Your task to perform on an android device: Clear the shopping cart on target. Add "logitech g933" to the cart on target, then select checkout. Image 0: 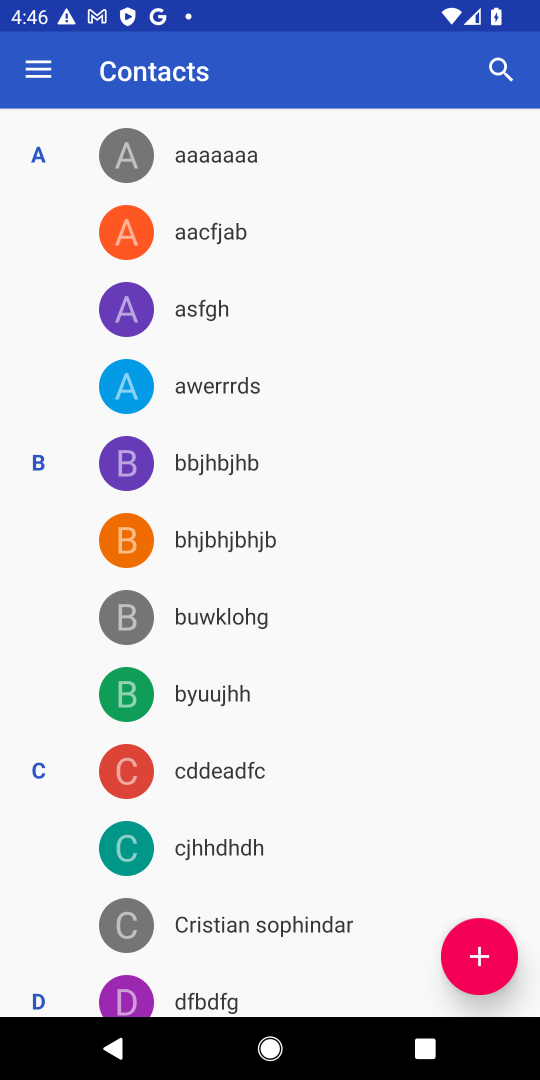
Step 0: press home button
Your task to perform on an android device: Clear the shopping cart on target. Add "logitech g933" to the cart on target, then select checkout. Image 1: 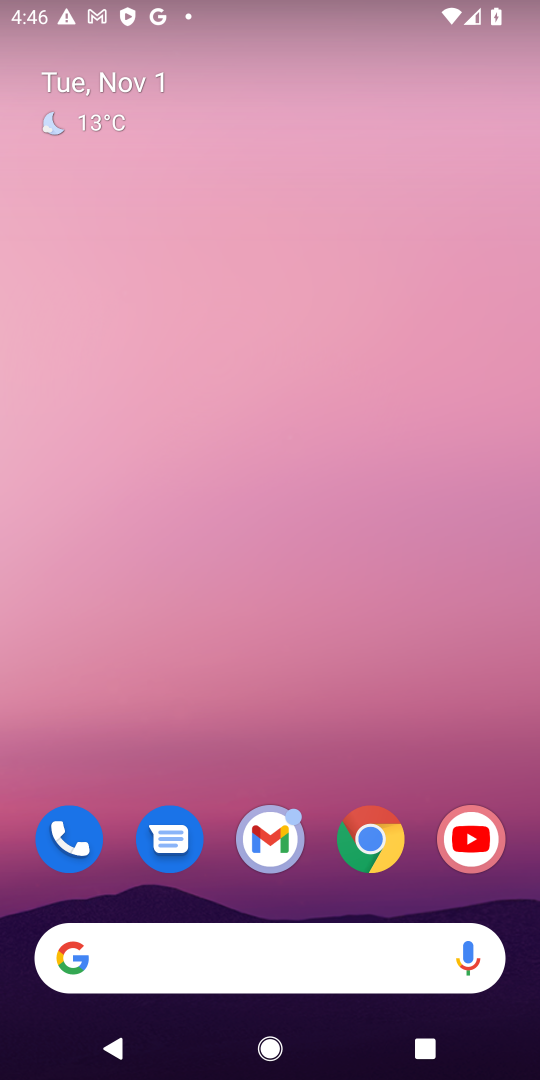
Step 1: drag from (306, 878) to (385, 14)
Your task to perform on an android device: Clear the shopping cart on target. Add "logitech g933" to the cart on target, then select checkout. Image 2: 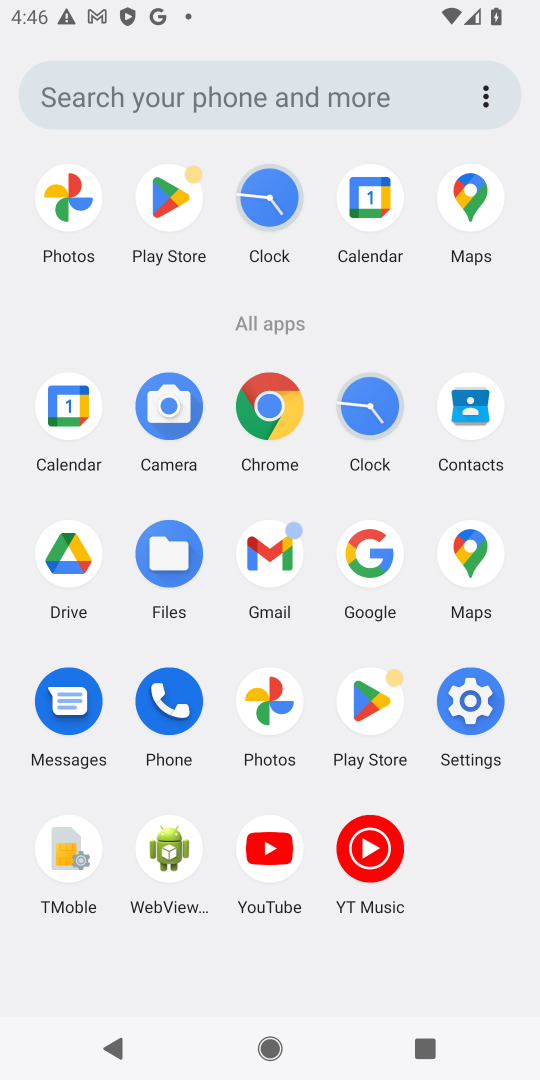
Step 2: click (257, 422)
Your task to perform on an android device: Clear the shopping cart on target. Add "logitech g933" to the cart on target, then select checkout. Image 3: 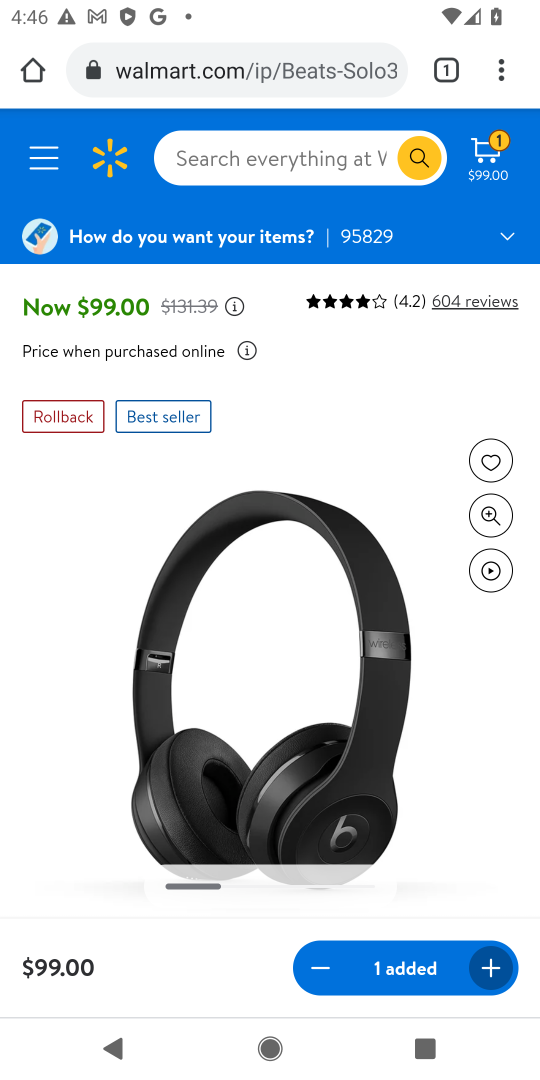
Step 3: click (266, 76)
Your task to perform on an android device: Clear the shopping cart on target. Add "logitech g933" to the cart on target, then select checkout. Image 4: 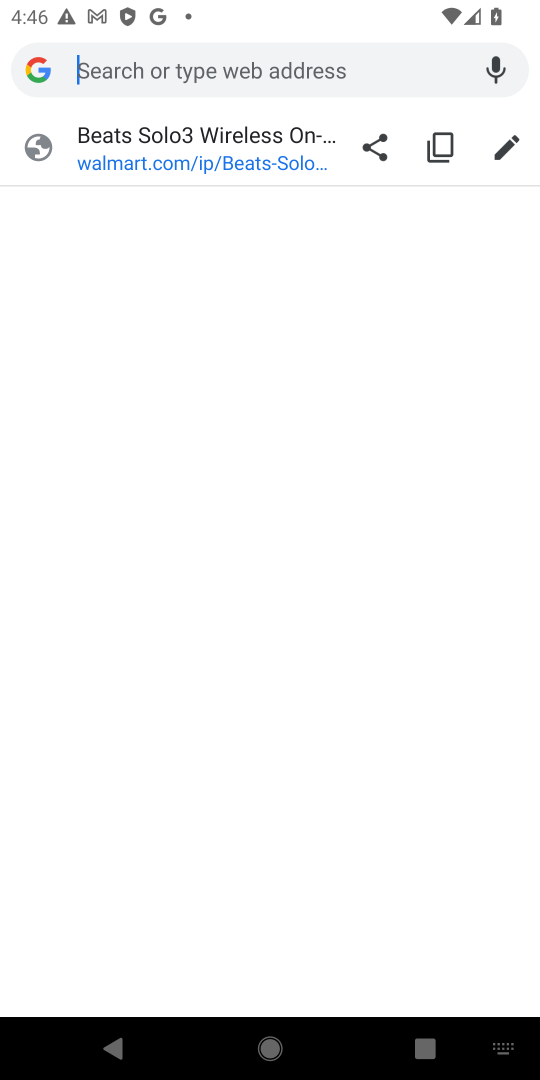
Step 4: type "target.com"
Your task to perform on an android device: Clear the shopping cart on target. Add "logitech g933" to the cart on target, then select checkout. Image 5: 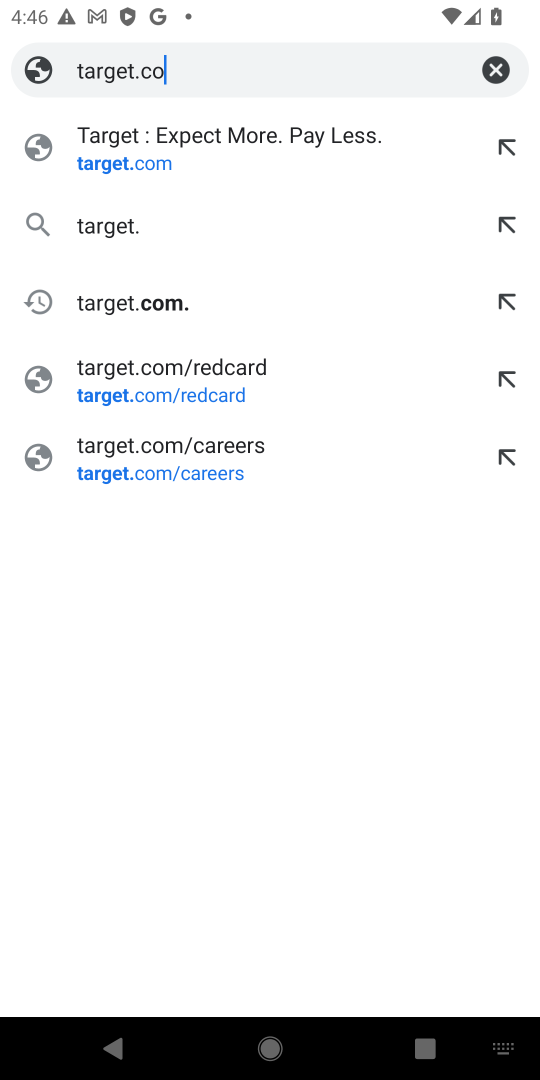
Step 5: press enter
Your task to perform on an android device: Clear the shopping cart on target. Add "logitech g933" to the cart on target, then select checkout. Image 6: 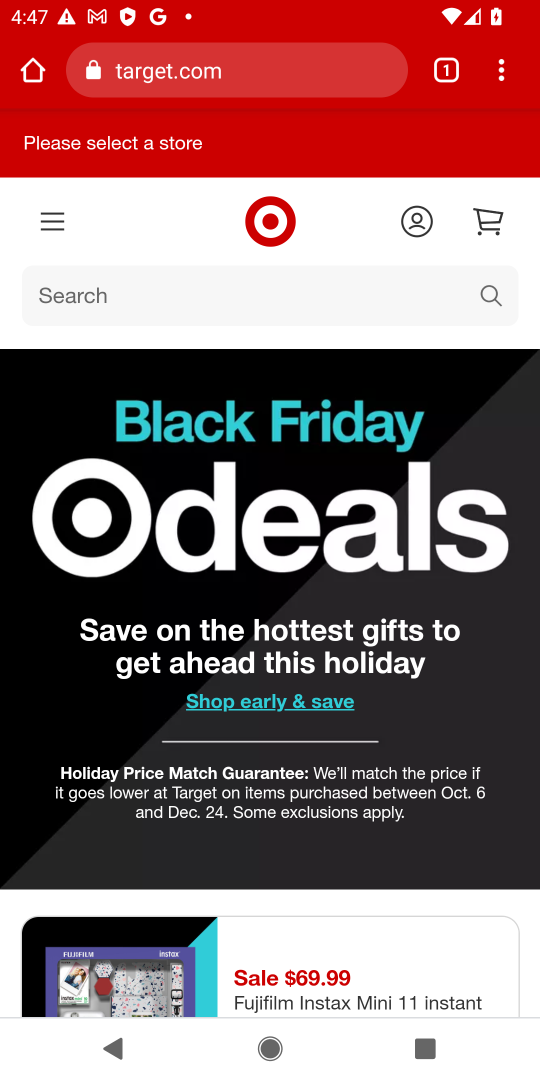
Step 6: click (331, 306)
Your task to perform on an android device: Clear the shopping cart on target. Add "logitech g933" to the cart on target, then select checkout. Image 7: 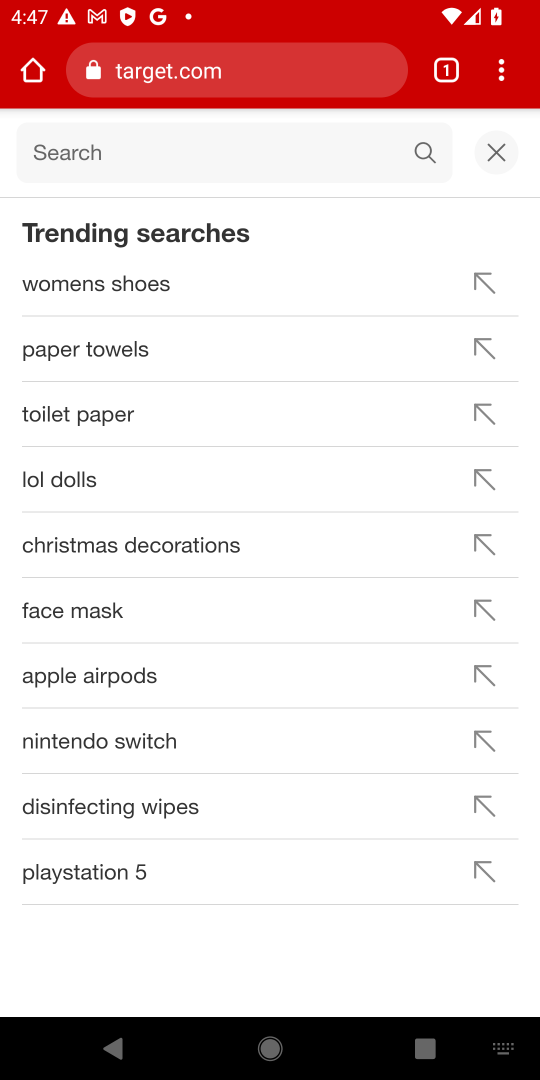
Step 7: click (490, 151)
Your task to perform on an android device: Clear the shopping cart on target. Add "logitech g933" to the cart on target, then select checkout. Image 8: 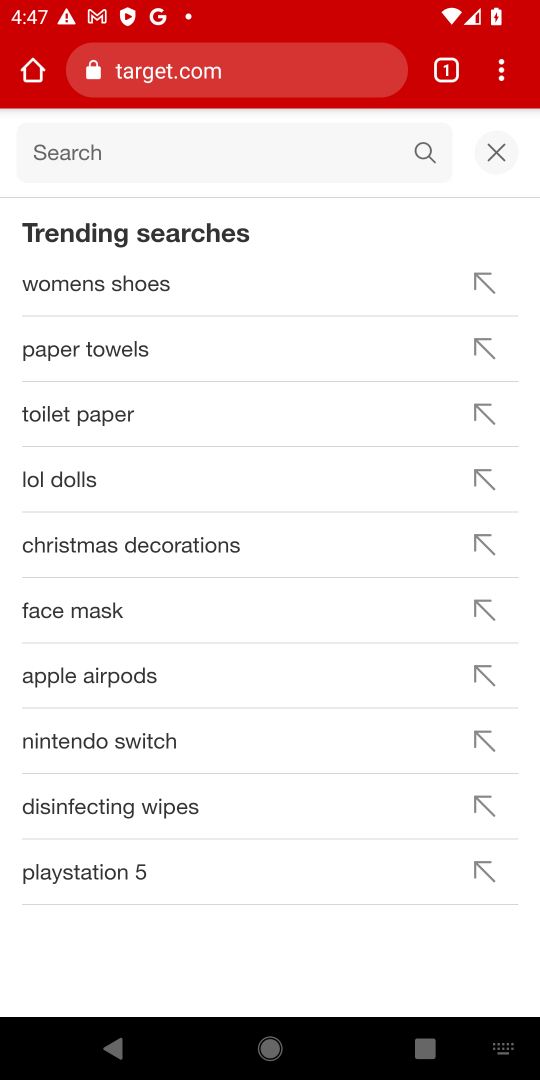
Step 8: type "logitech g933"
Your task to perform on an android device: Clear the shopping cart on target. Add "logitech g933" to the cart on target, then select checkout. Image 9: 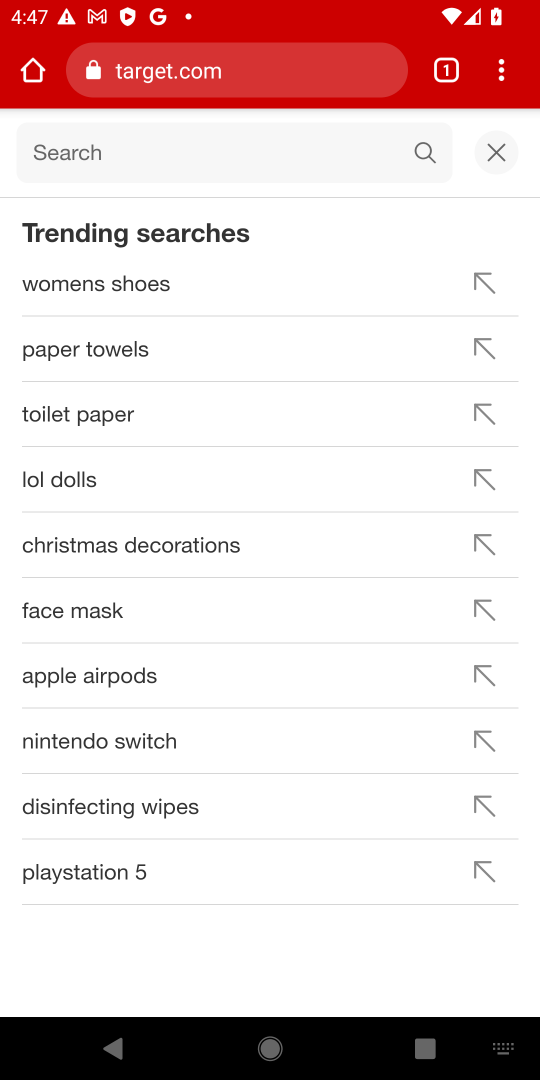
Step 9: click (490, 151)
Your task to perform on an android device: Clear the shopping cart on target. Add "logitech g933" to the cart on target, then select checkout. Image 10: 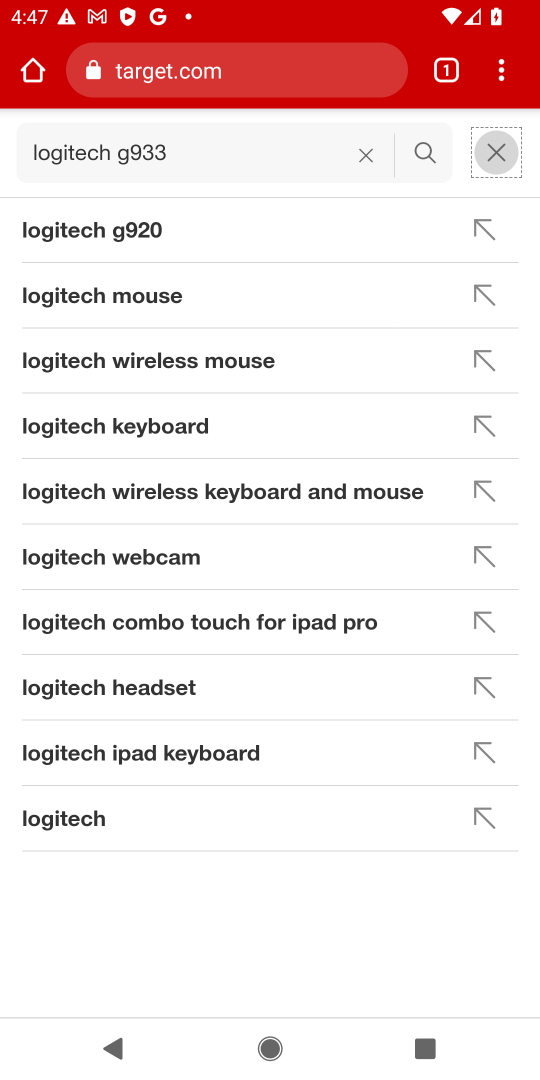
Step 10: click (493, 153)
Your task to perform on an android device: Clear the shopping cart on target. Add "logitech g933" to the cart on target, then select checkout. Image 11: 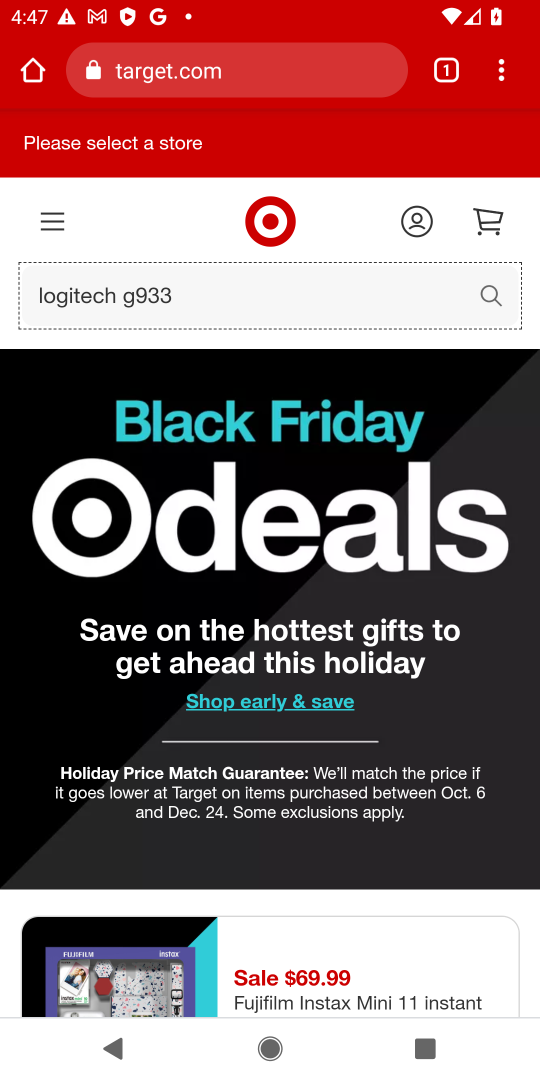
Step 11: click (489, 216)
Your task to perform on an android device: Clear the shopping cart on target. Add "logitech g933" to the cart on target, then select checkout. Image 12: 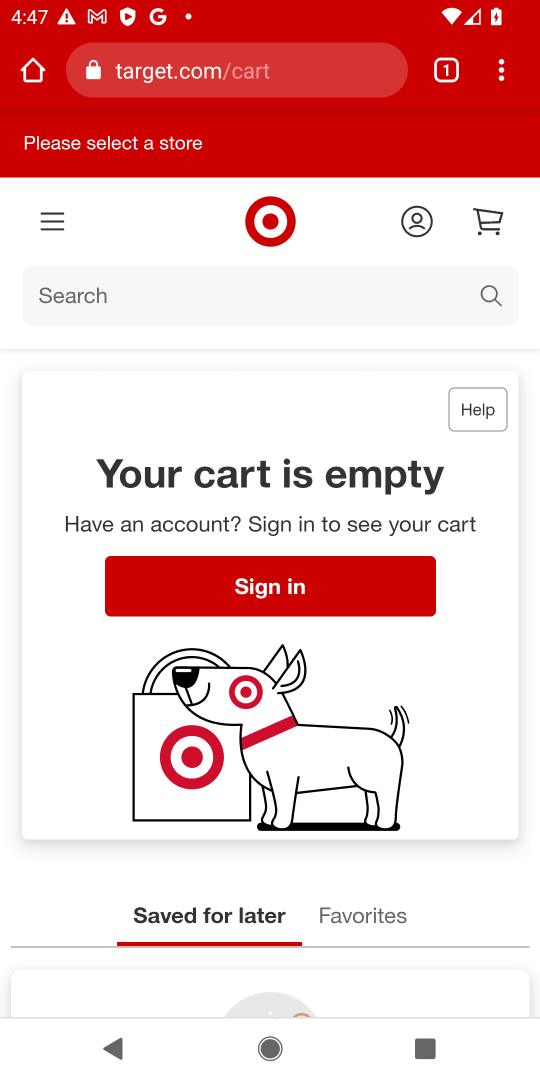
Step 12: click (367, 288)
Your task to perform on an android device: Clear the shopping cart on target. Add "logitech g933" to the cart on target, then select checkout. Image 13: 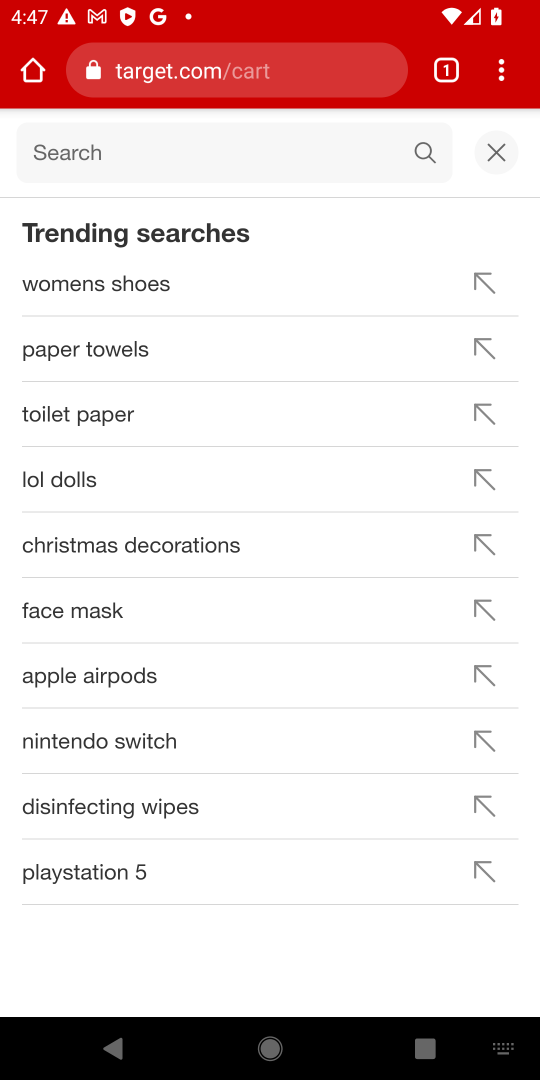
Step 13: type "logitech g933"
Your task to perform on an android device: Clear the shopping cart on target. Add "logitech g933" to the cart on target, then select checkout. Image 14: 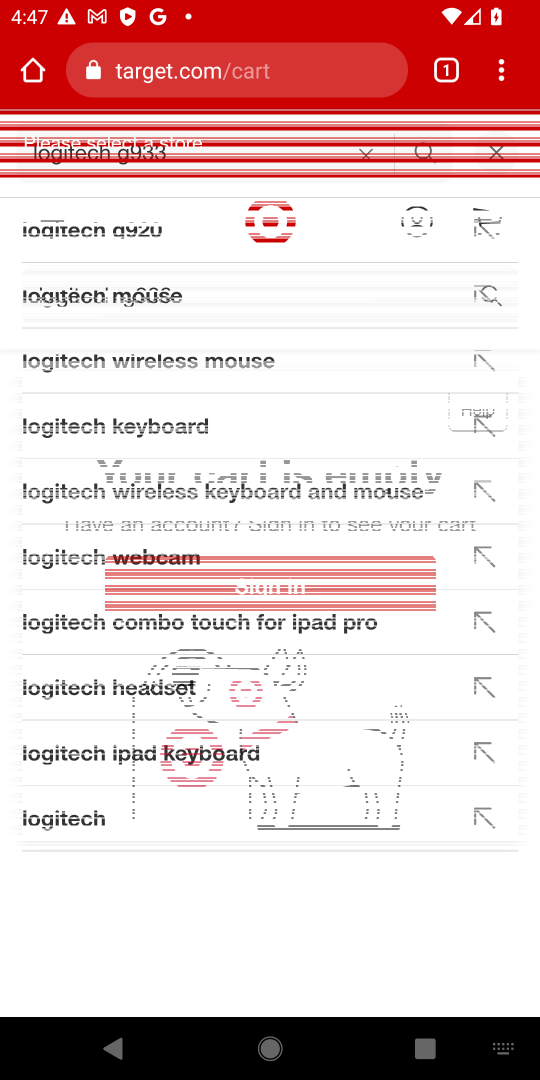
Step 14: press enter
Your task to perform on an android device: Clear the shopping cart on target. Add "logitech g933" to the cart on target, then select checkout. Image 15: 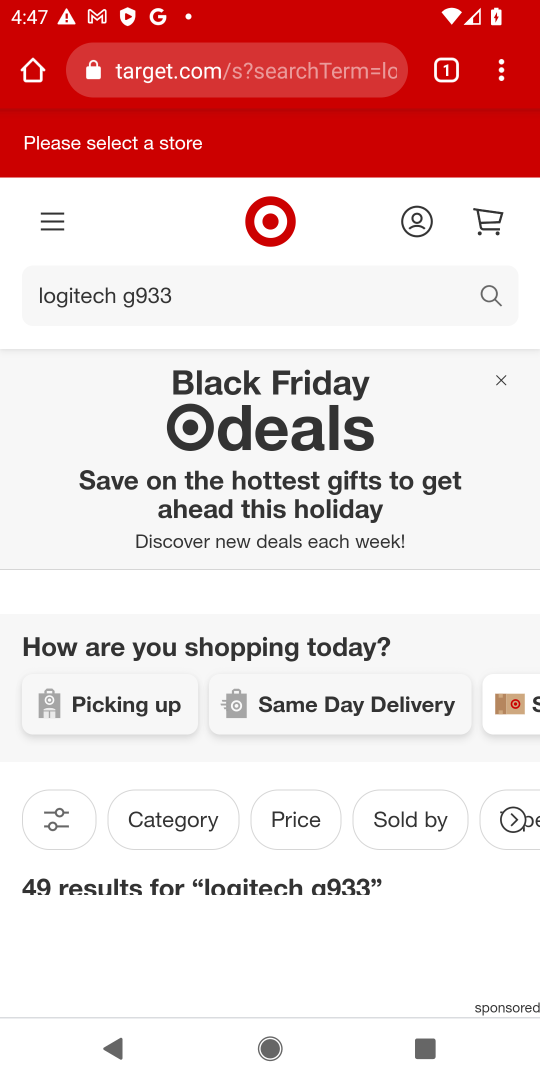
Step 15: task complete